Your task to perform on an android device: View the shopping cart on ebay.com. Add razer blade to the cart on ebay.com, then select checkout. Image 0: 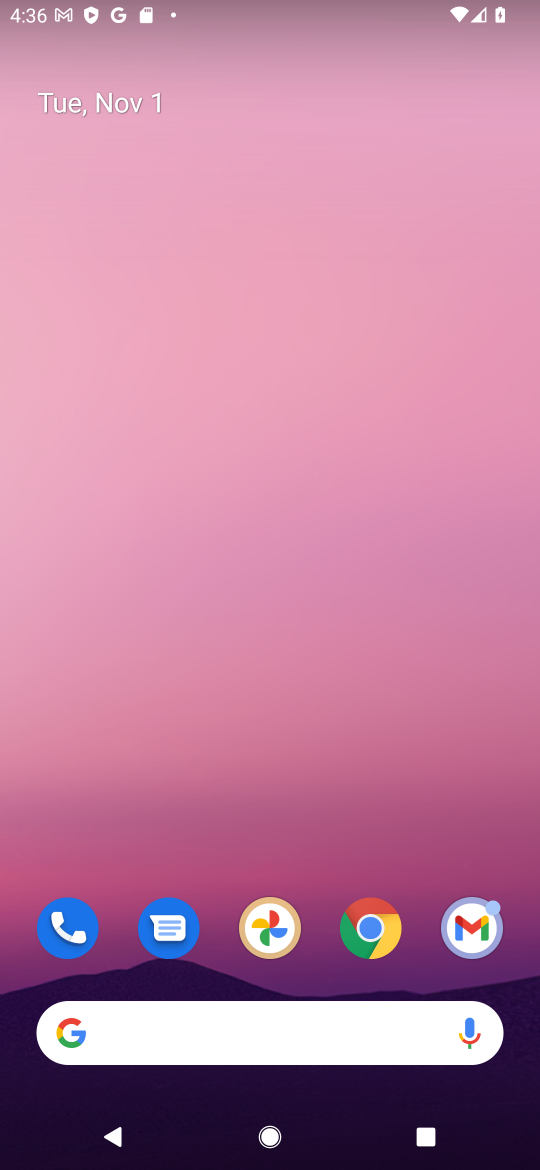
Step 0: click (362, 942)
Your task to perform on an android device: View the shopping cart on ebay.com. Add razer blade to the cart on ebay.com, then select checkout. Image 1: 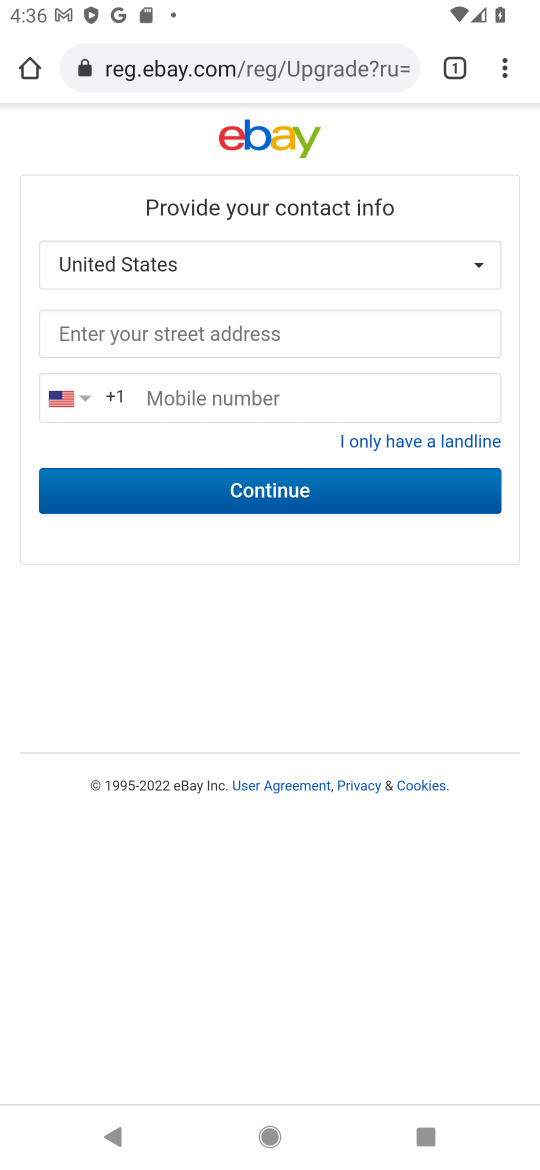
Step 1: click (333, 81)
Your task to perform on an android device: View the shopping cart on ebay.com. Add razer blade to the cart on ebay.com, then select checkout. Image 2: 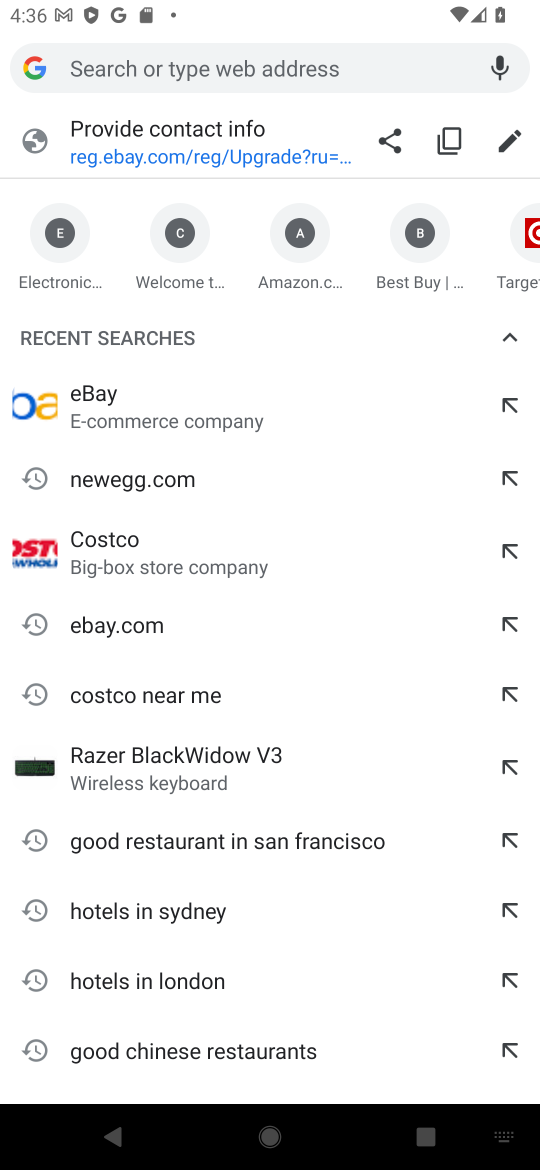
Step 2: type "ebay.com"
Your task to perform on an android device: View the shopping cart on ebay.com. Add razer blade to the cart on ebay.com, then select checkout. Image 3: 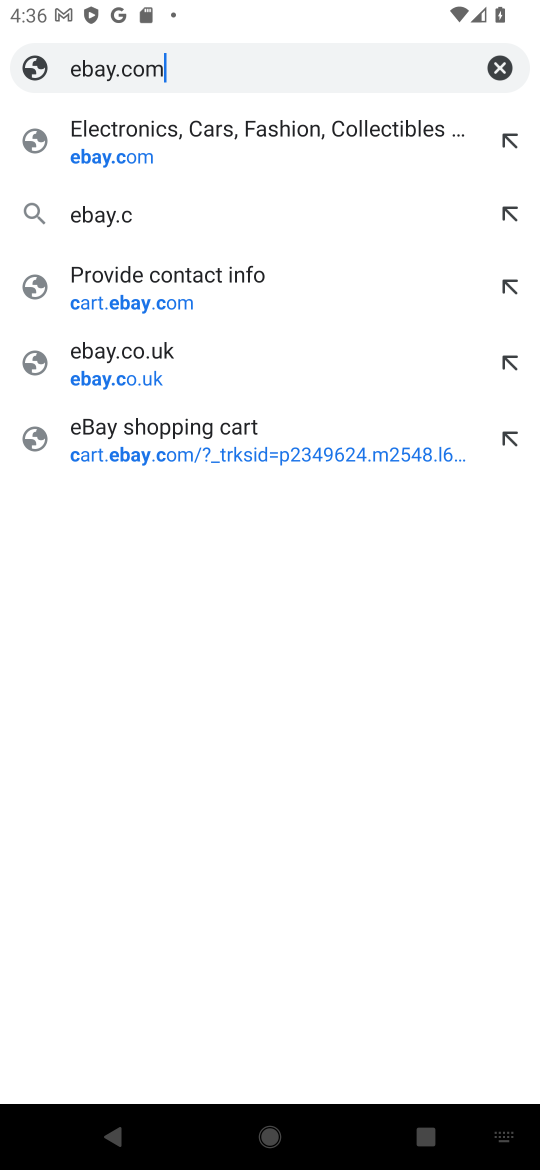
Step 3: type ""
Your task to perform on an android device: View the shopping cart on ebay.com. Add razer blade to the cart on ebay.com, then select checkout. Image 4: 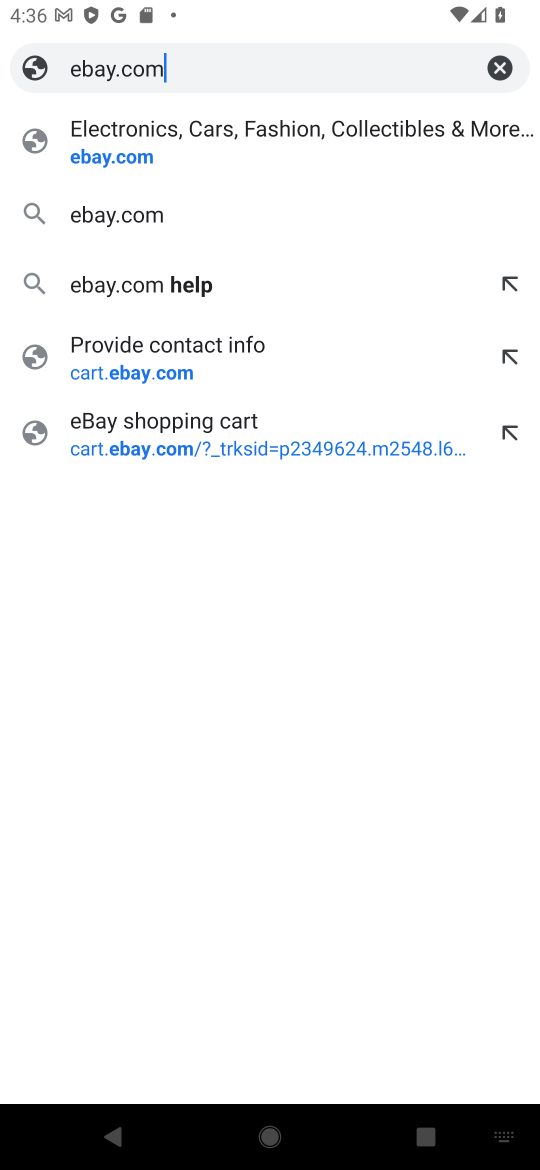
Step 4: press enter
Your task to perform on an android device: View the shopping cart on ebay.com. Add razer blade to the cart on ebay.com, then select checkout. Image 5: 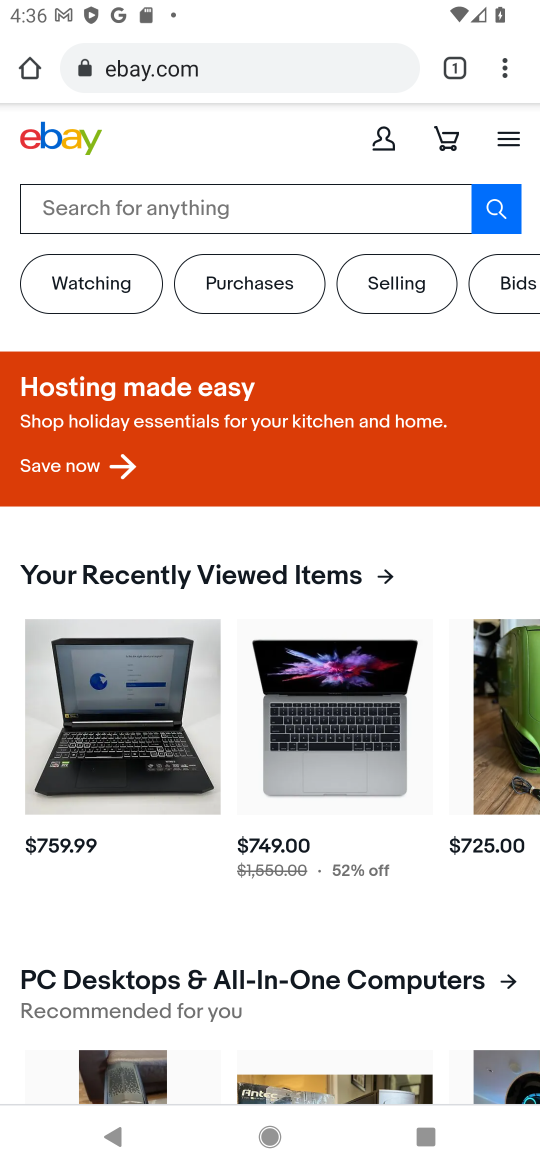
Step 5: click (441, 137)
Your task to perform on an android device: View the shopping cart on ebay.com. Add razer blade to the cart on ebay.com, then select checkout. Image 6: 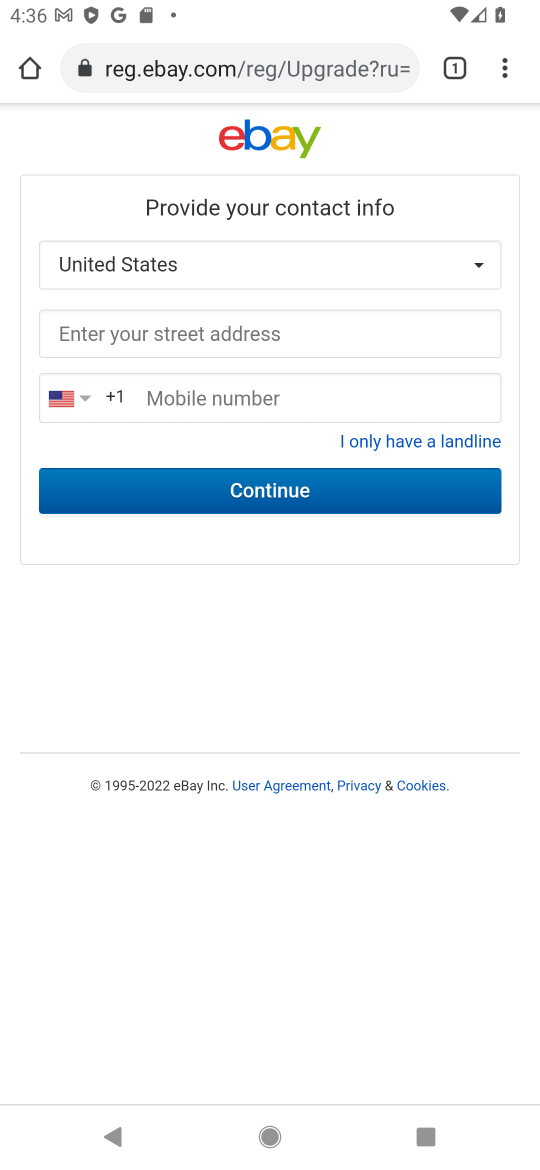
Step 6: press back button
Your task to perform on an android device: View the shopping cart on ebay.com. Add razer blade to the cart on ebay.com, then select checkout. Image 7: 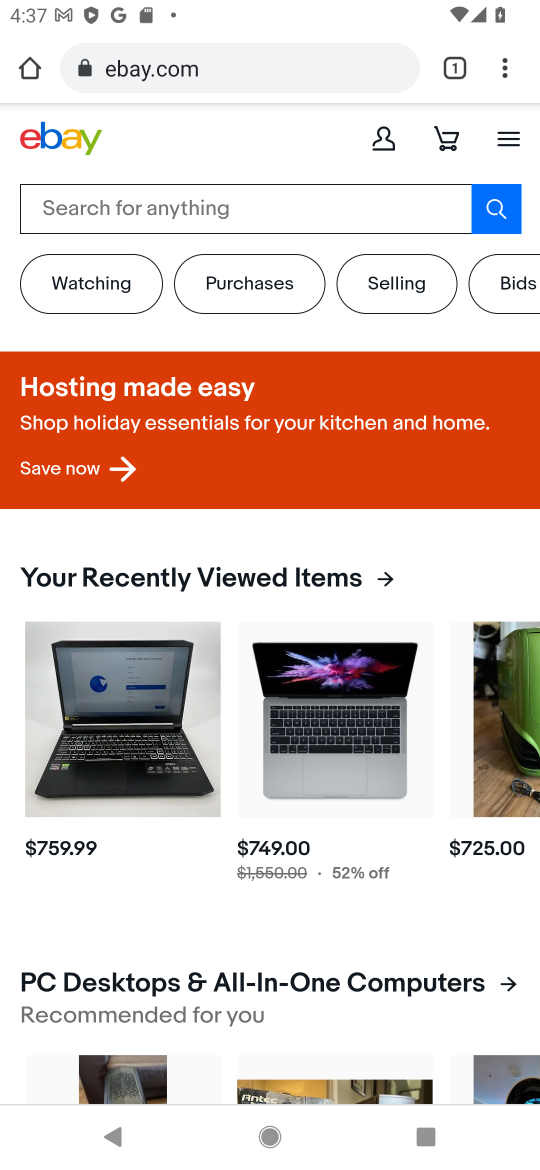
Step 7: click (257, 205)
Your task to perform on an android device: View the shopping cart on ebay.com. Add razer blade to the cart on ebay.com, then select checkout. Image 8: 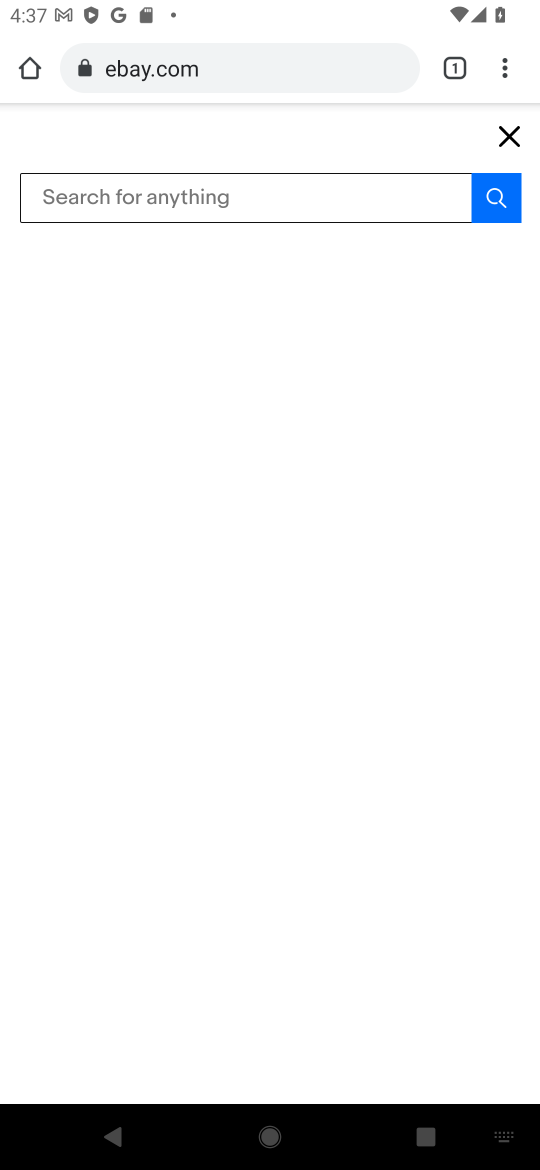
Step 8: type "razer blade"
Your task to perform on an android device: View the shopping cart on ebay.com. Add razer blade to the cart on ebay.com, then select checkout. Image 9: 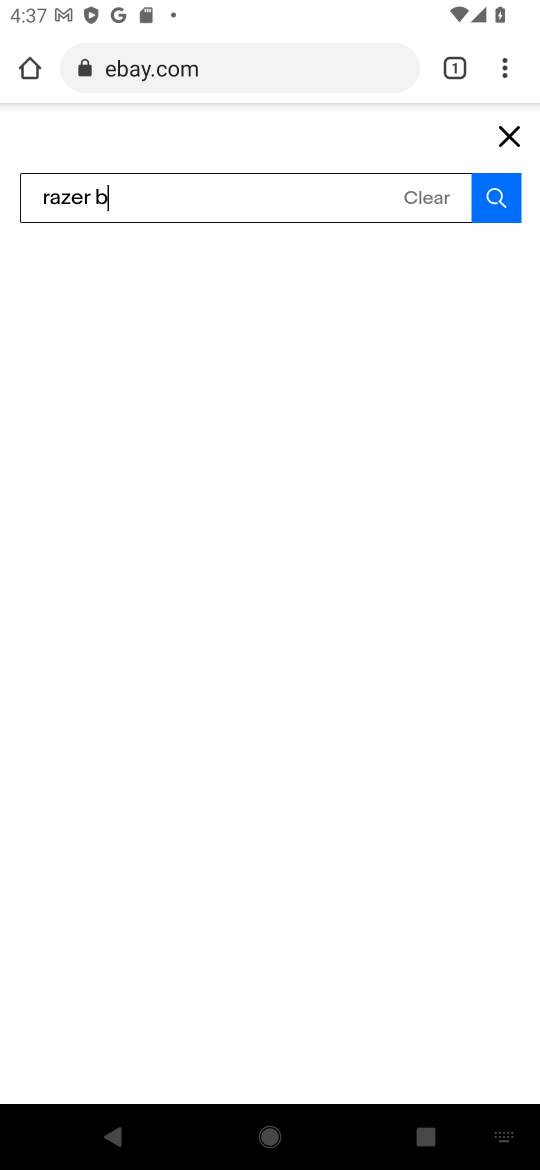
Step 9: type ""
Your task to perform on an android device: View the shopping cart on ebay.com. Add razer blade to the cart on ebay.com, then select checkout. Image 10: 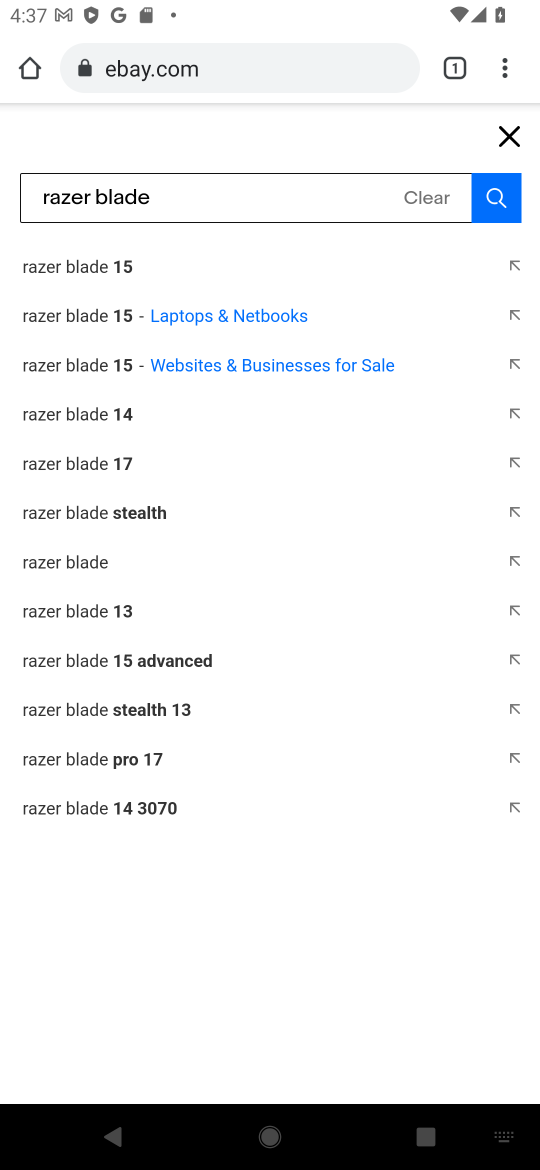
Step 10: press enter
Your task to perform on an android device: View the shopping cart on ebay.com. Add razer blade to the cart on ebay.com, then select checkout. Image 11: 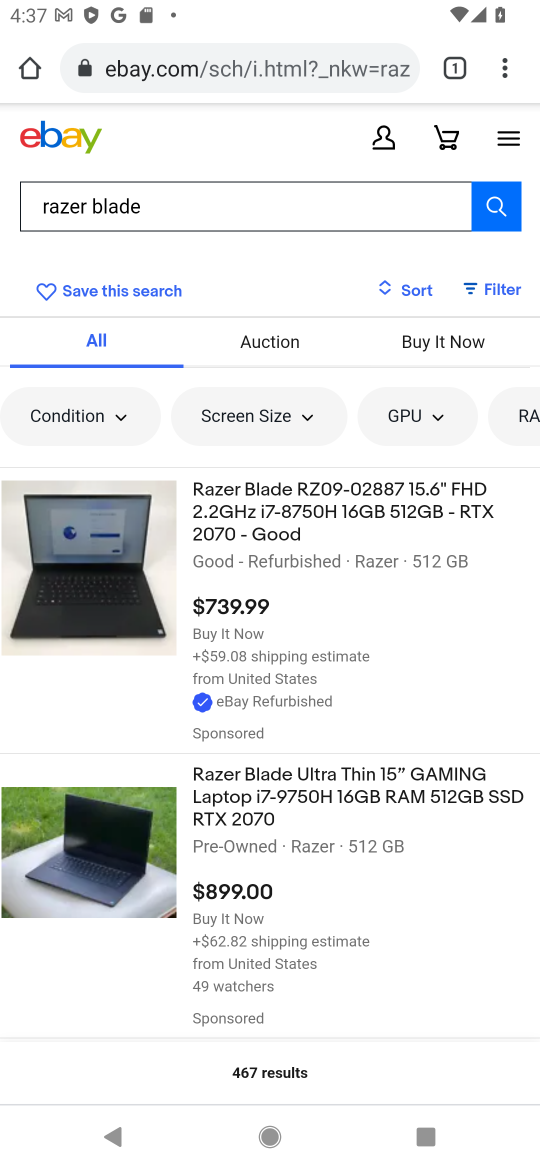
Step 11: click (305, 521)
Your task to perform on an android device: View the shopping cart on ebay.com. Add razer blade to the cart on ebay.com, then select checkout. Image 12: 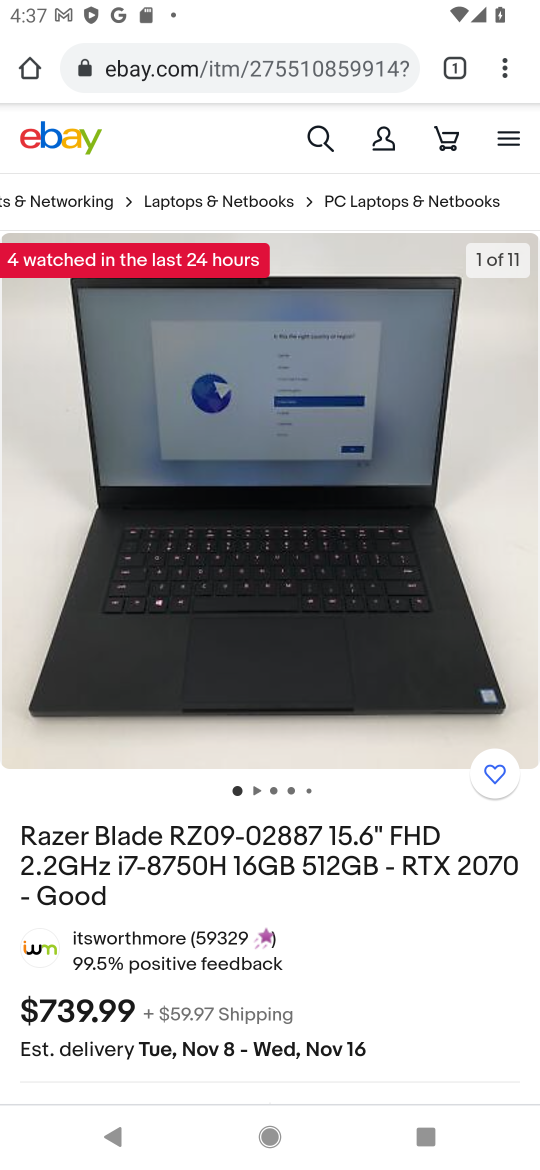
Step 12: drag from (315, 898) to (333, 241)
Your task to perform on an android device: View the shopping cart on ebay.com. Add razer blade to the cart on ebay.com, then select checkout. Image 13: 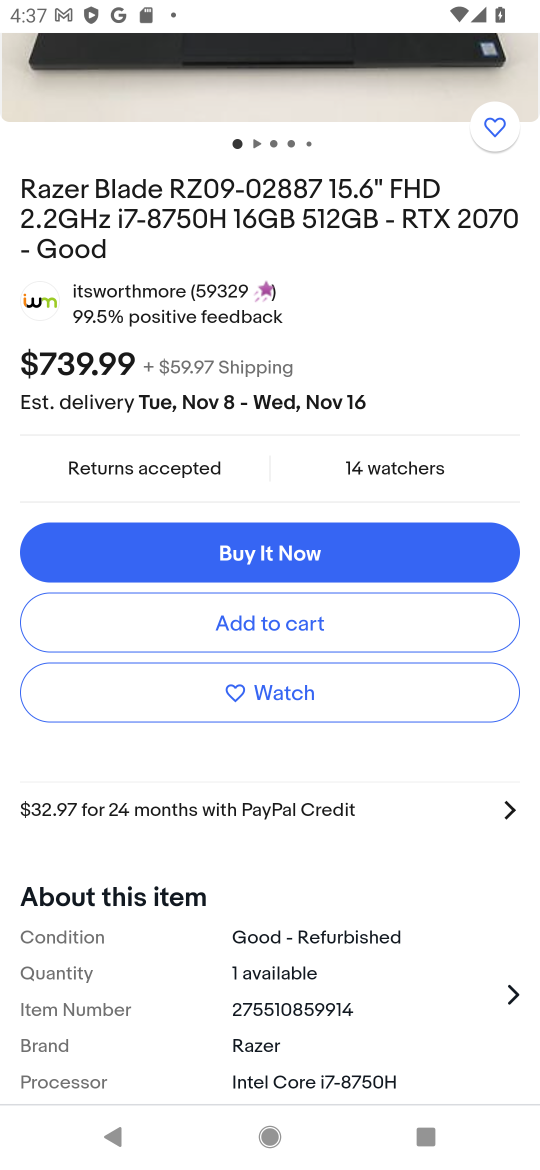
Step 13: click (293, 622)
Your task to perform on an android device: View the shopping cart on ebay.com. Add razer blade to the cart on ebay.com, then select checkout. Image 14: 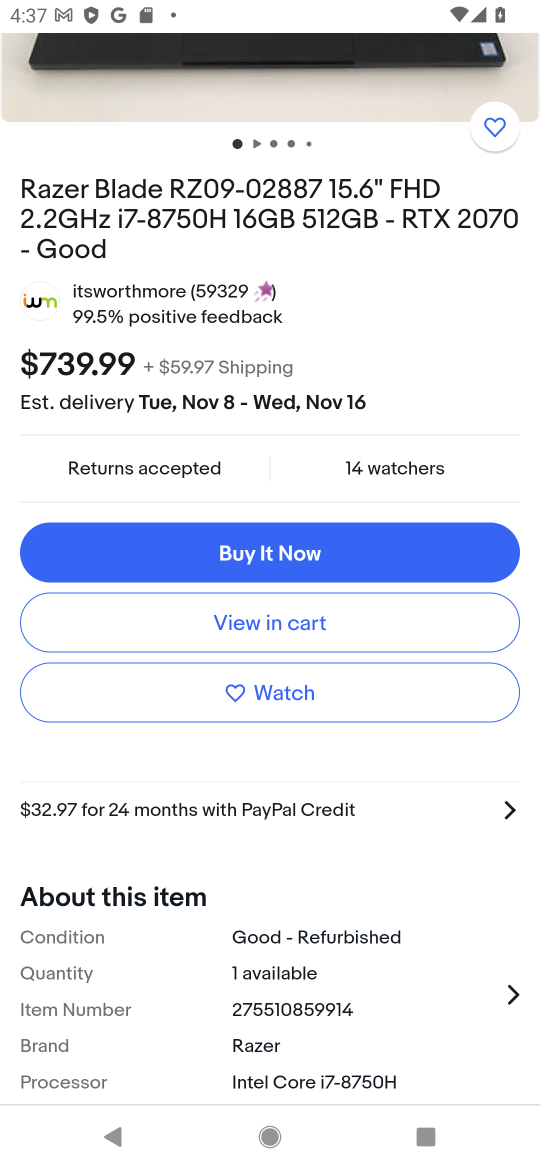
Step 14: click (329, 620)
Your task to perform on an android device: View the shopping cart on ebay.com. Add razer blade to the cart on ebay.com, then select checkout. Image 15: 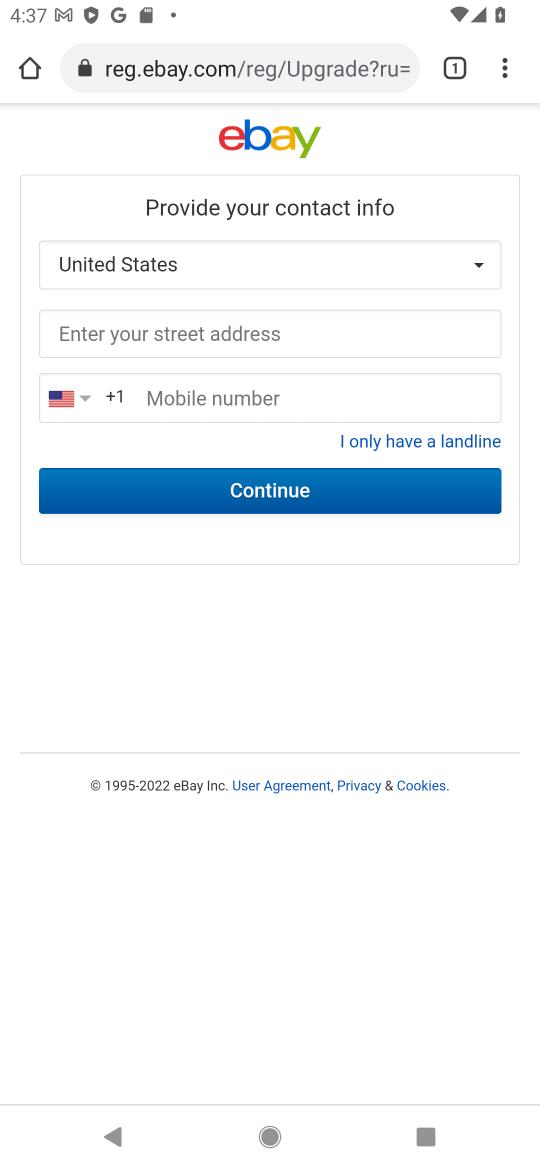
Step 15: task complete